Your task to perform on an android device: What's on my calendar tomorrow? Image 0: 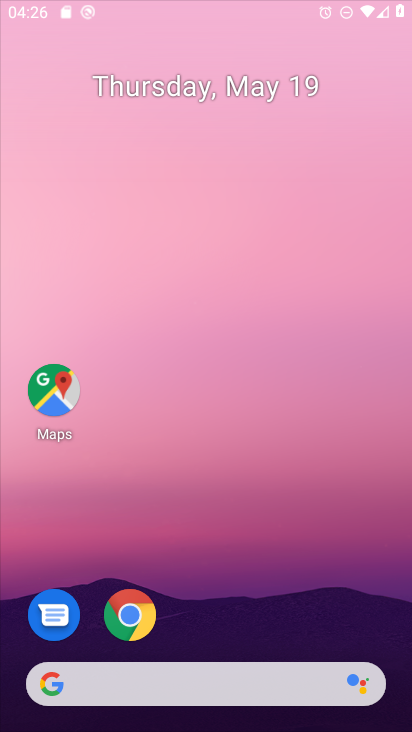
Step 0: click (187, 113)
Your task to perform on an android device: What's on my calendar tomorrow? Image 1: 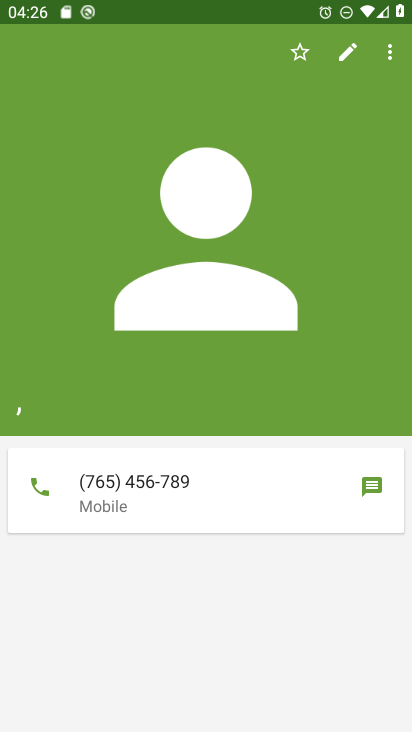
Step 1: press home button
Your task to perform on an android device: What's on my calendar tomorrow? Image 2: 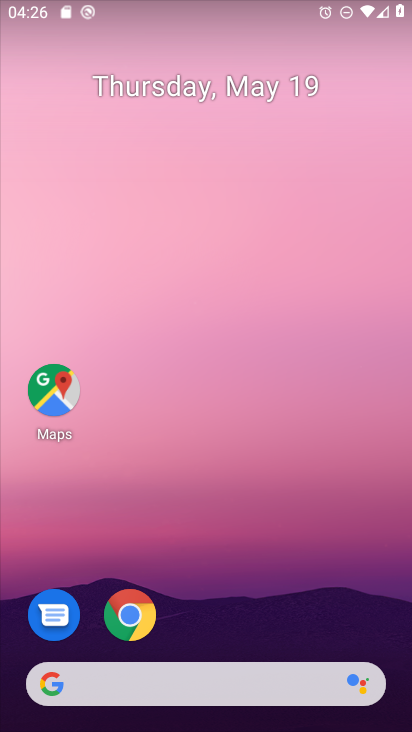
Step 2: drag from (290, 611) to (214, 36)
Your task to perform on an android device: What's on my calendar tomorrow? Image 3: 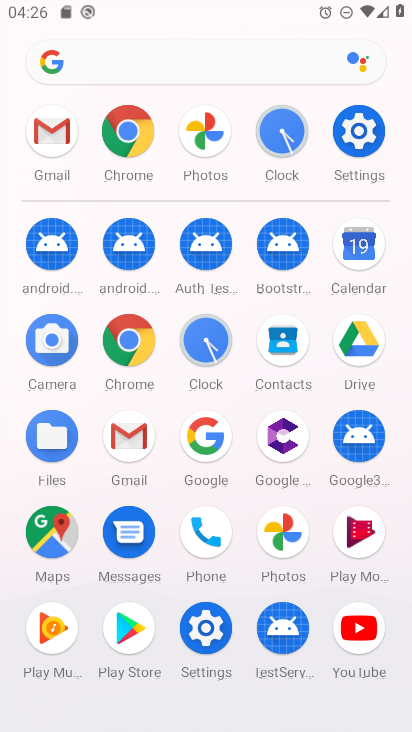
Step 3: click (363, 265)
Your task to perform on an android device: What's on my calendar tomorrow? Image 4: 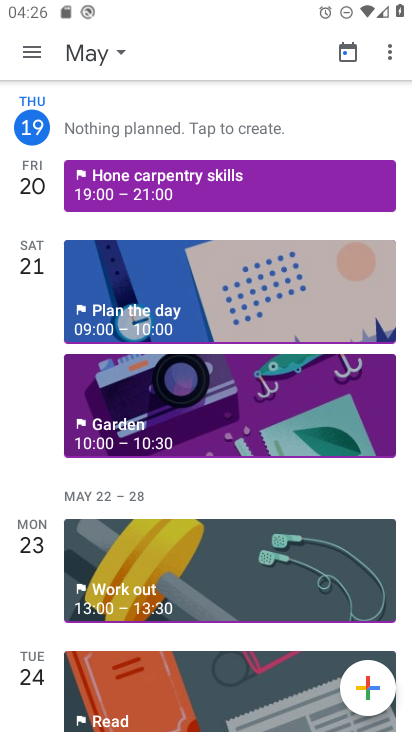
Step 4: click (114, 56)
Your task to perform on an android device: What's on my calendar tomorrow? Image 5: 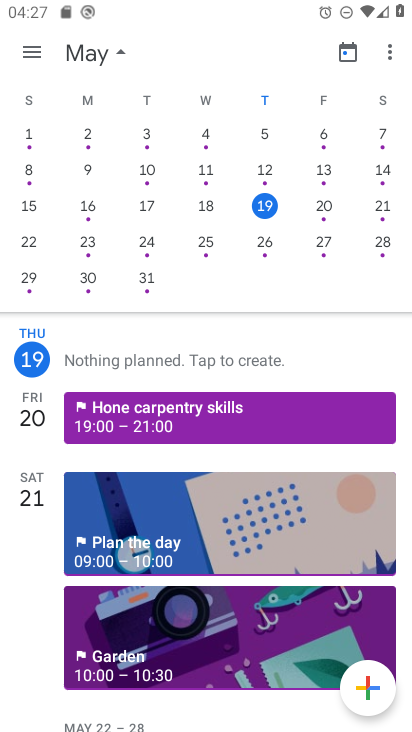
Step 5: click (313, 219)
Your task to perform on an android device: What's on my calendar tomorrow? Image 6: 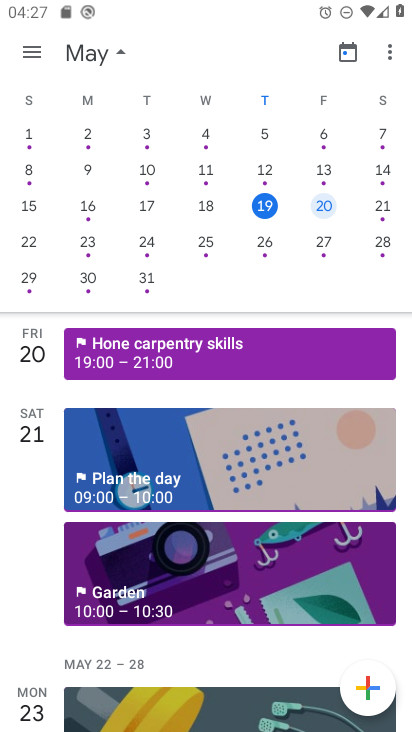
Step 6: click (123, 68)
Your task to perform on an android device: What's on my calendar tomorrow? Image 7: 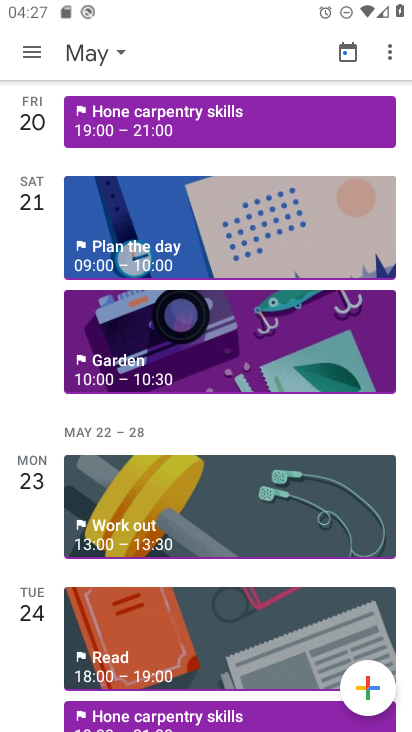
Step 7: task complete